Your task to perform on an android device: Go to ESPN.com Image 0: 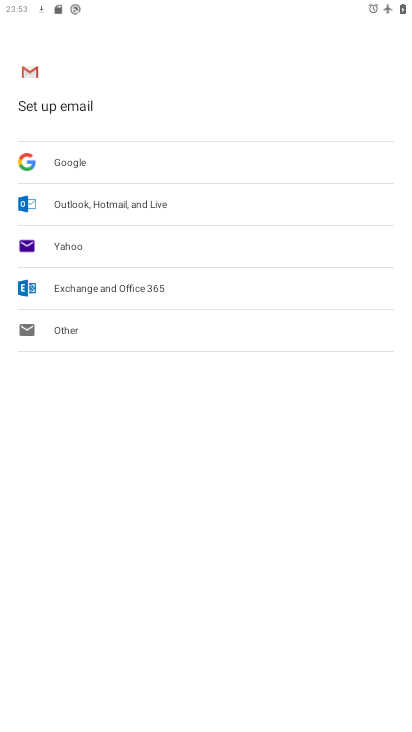
Step 0: press home button
Your task to perform on an android device: Go to ESPN.com Image 1: 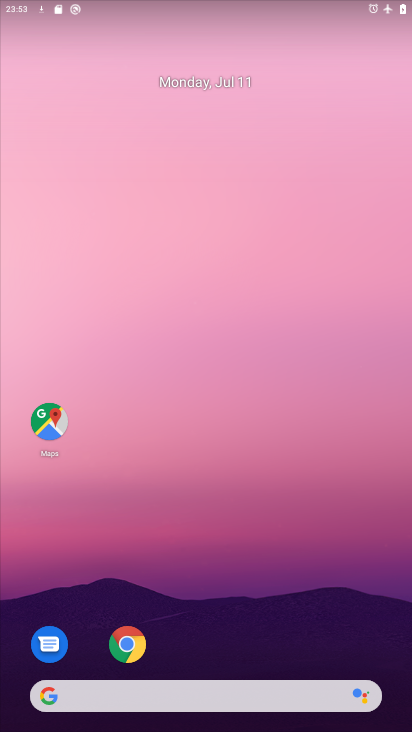
Step 1: drag from (200, 666) to (181, 193)
Your task to perform on an android device: Go to ESPN.com Image 2: 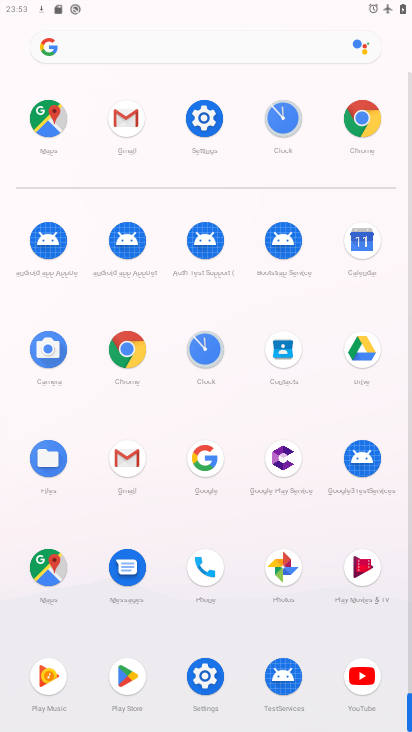
Step 2: click (358, 118)
Your task to perform on an android device: Go to ESPN.com Image 3: 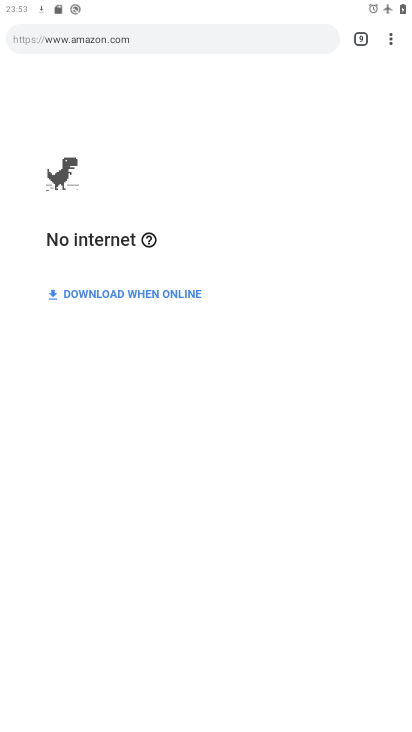
Step 3: click (390, 34)
Your task to perform on an android device: Go to ESPN.com Image 4: 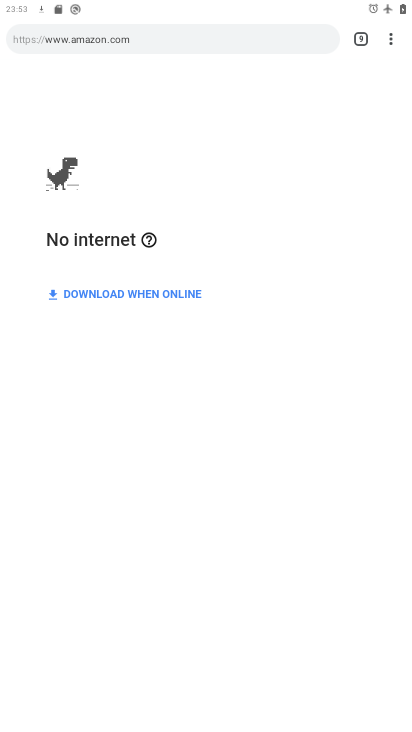
Step 4: click (385, 40)
Your task to perform on an android device: Go to ESPN.com Image 5: 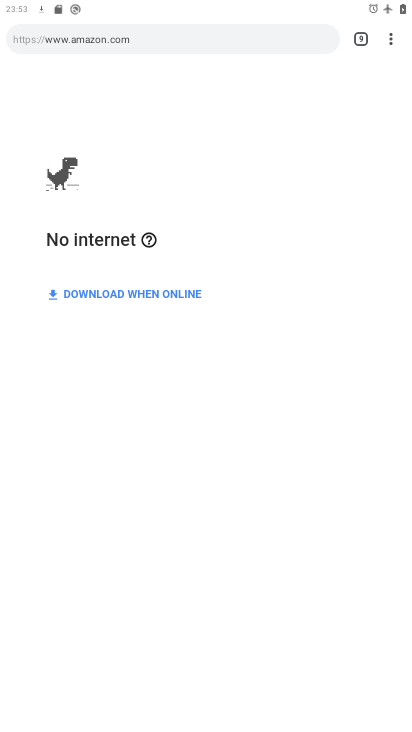
Step 5: click (385, 40)
Your task to perform on an android device: Go to ESPN.com Image 6: 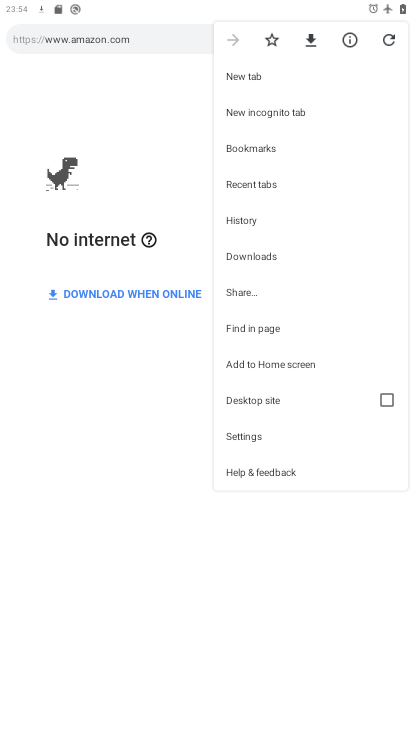
Step 6: click (243, 58)
Your task to perform on an android device: Go to ESPN.com Image 7: 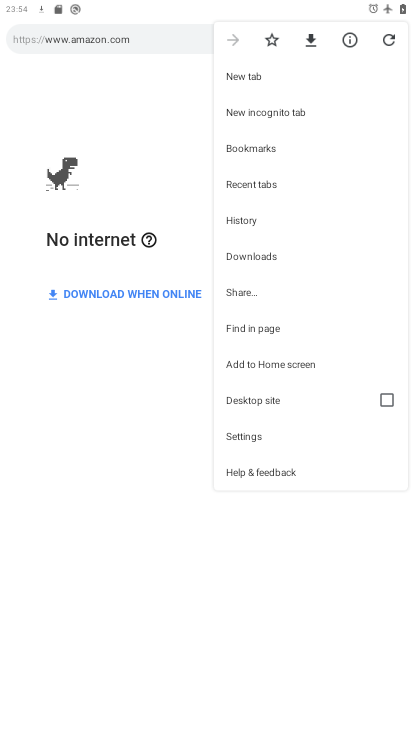
Step 7: click (243, 69)
Your task to perform on an android device: Go to ESPN.com Image 8: 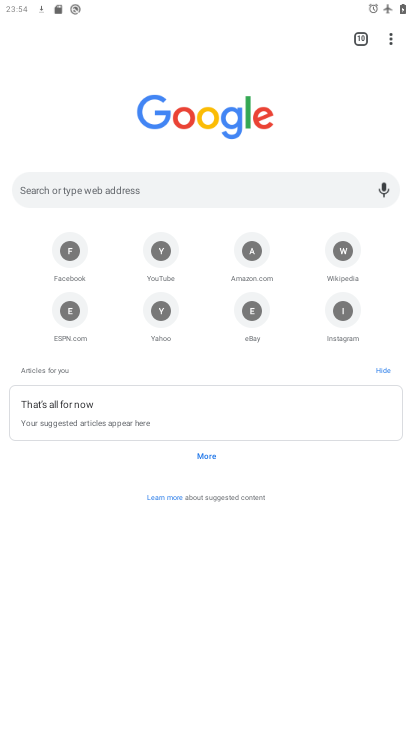
Step 8: click (64, 318)
Your task to perform on an android device: Go to ESPN.com Image 9: 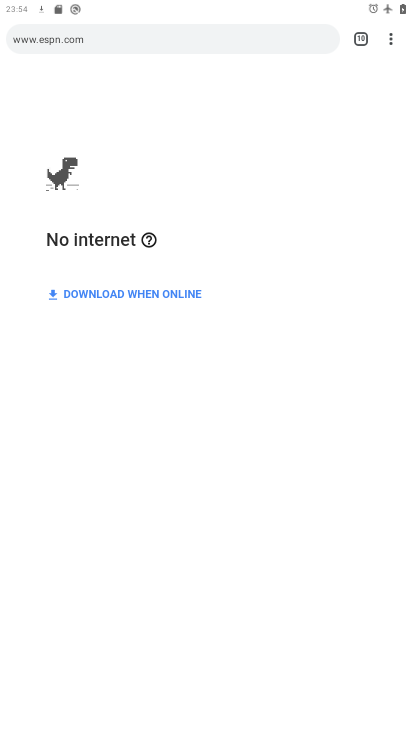
Step 9: task complete